Your task to perform on an android device: set the stopwatch Image 0: 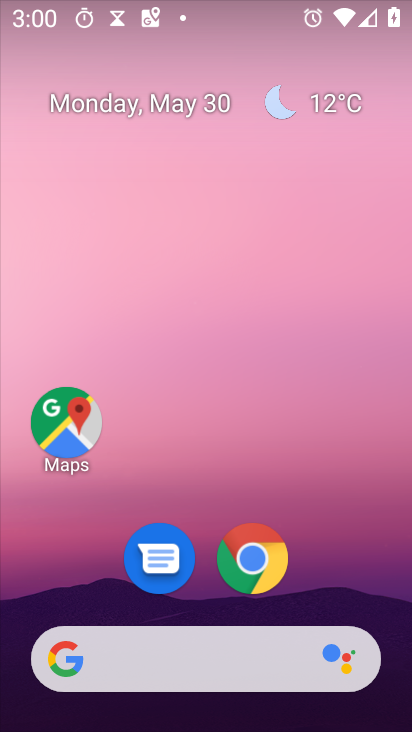
Step 0: drag from (198, 467) to (247, 132)
Your task to perform on an android device: set the stopwatch Image 1: 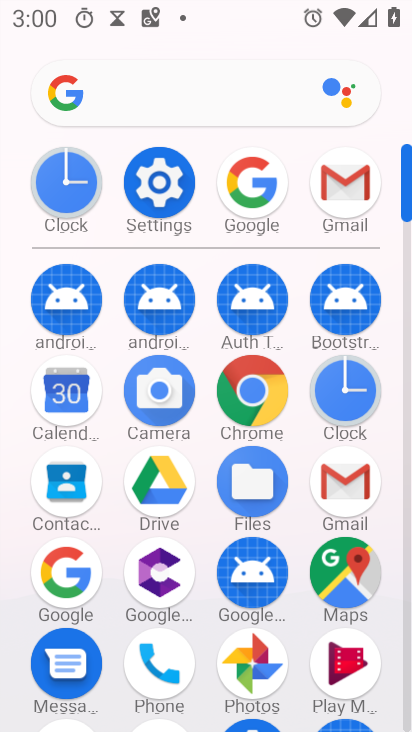
Step 1: click (348, 407)
Your task to perform on an android device: set the stopwatch Image 2: 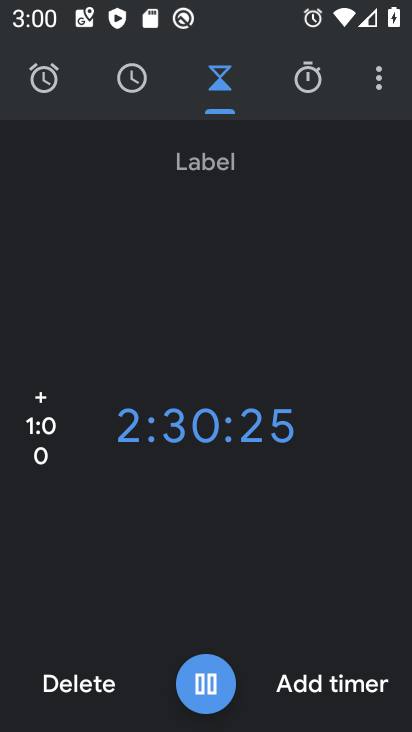
Step 2: click (321, 78)
Your task to perform on an android device: set the stopwatch Image 3: 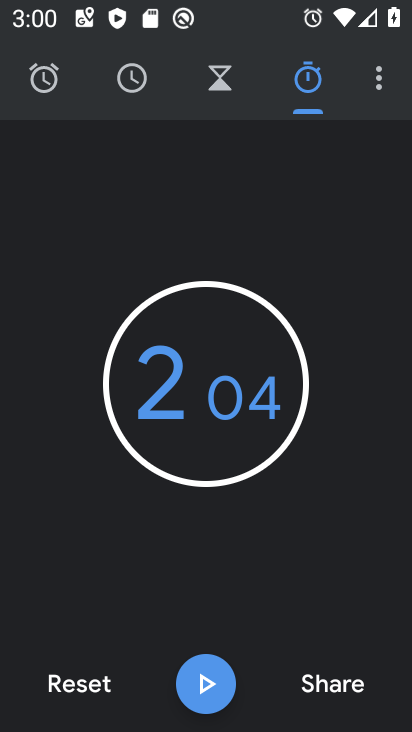
Step 3: task complete